Your task to perform on an android device: star an email in the gmail app Image 0: 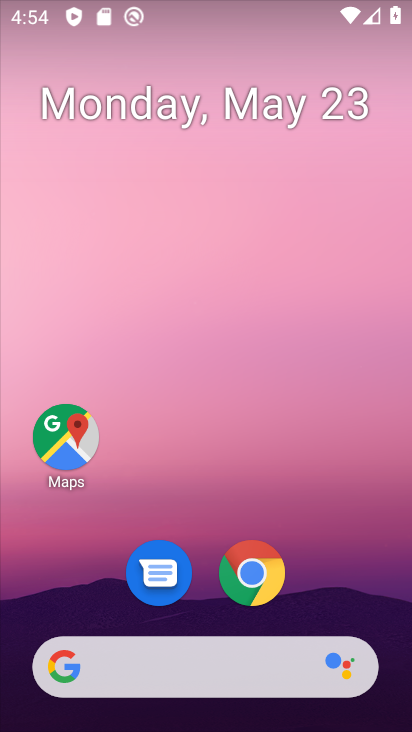
Step 0: drag from (331, 556) to (307, 138)
Your task to perform on an android device: star an email in the gmail app Image 1: 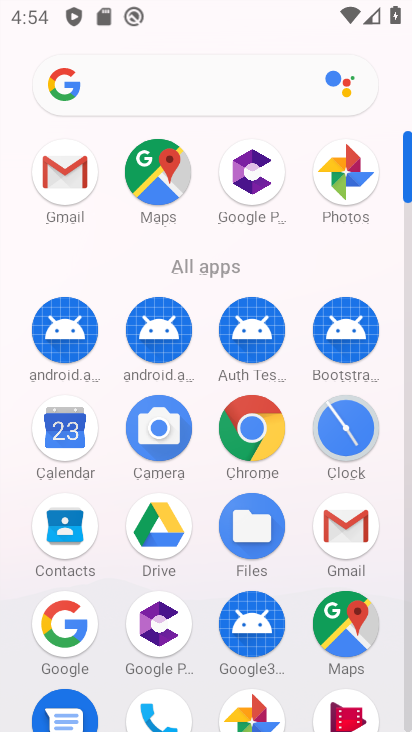
Step 1: click (65, 172)
Your task to perform on an android device: star an email in the gmail app Image 2: 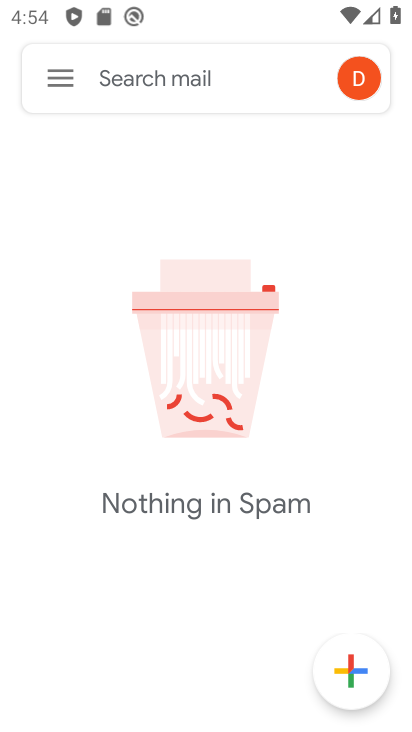
Step 2: click (59, 82)
Your task to perform on an android device: star an email in the gmail app Image 3: 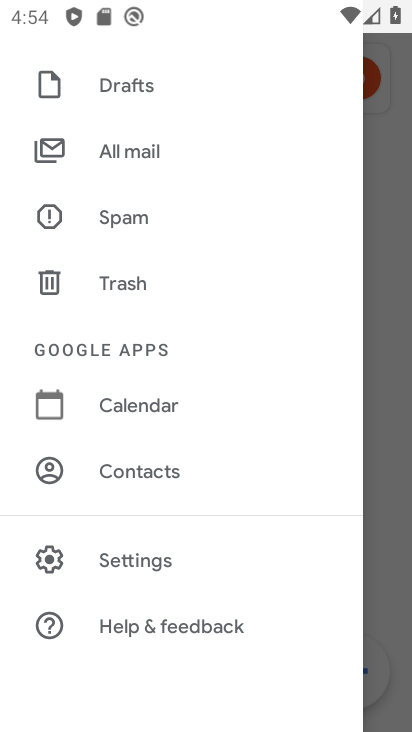
Step 3: click (155, 157)
Your task to perform on an android device: star an email in the gmail app Image 4: 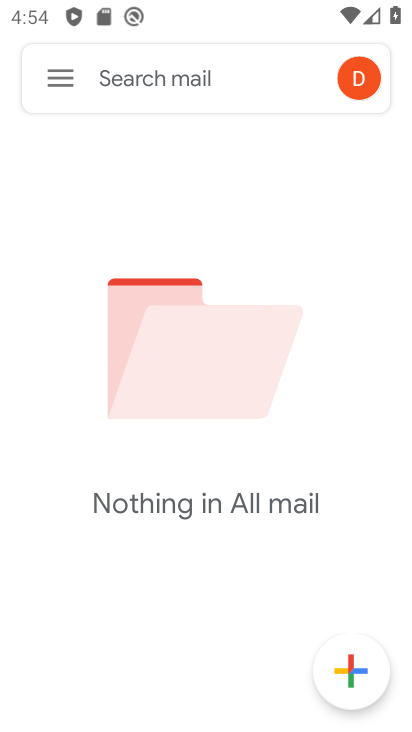
Step 4: task complete